Your task to perform on an android device: Open Chrome and go to settings Image 0: 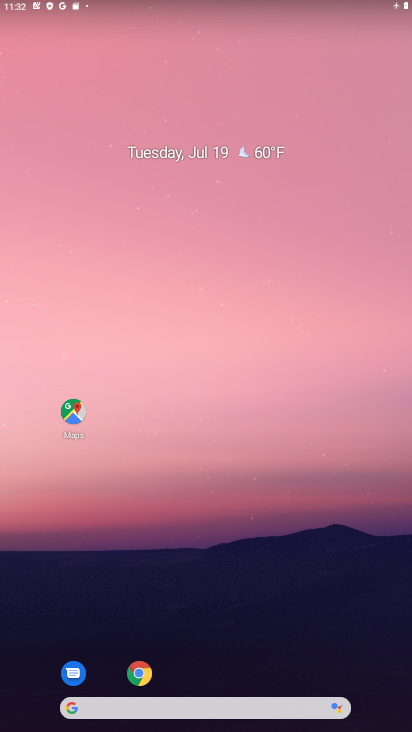
Step 0: click (140, 674)
Your task to perform on an android device: Open Chrome and go to settings Image 1: 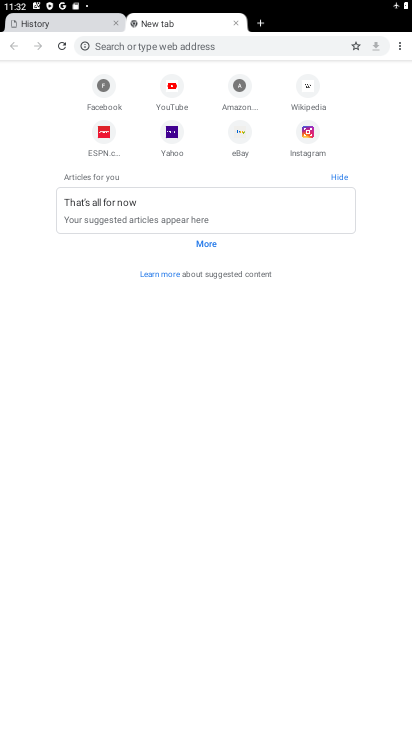
Step 1: click (401, 50)
Your task to perform on an android device: Open Chrome and go to settings Image 2: 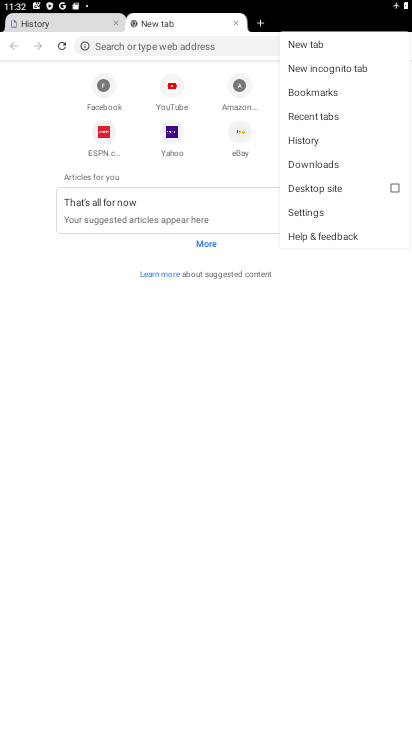
Step 2: click (306, 211)
Your task to perform on an android device: Open Chrome and go to settings Image 3: 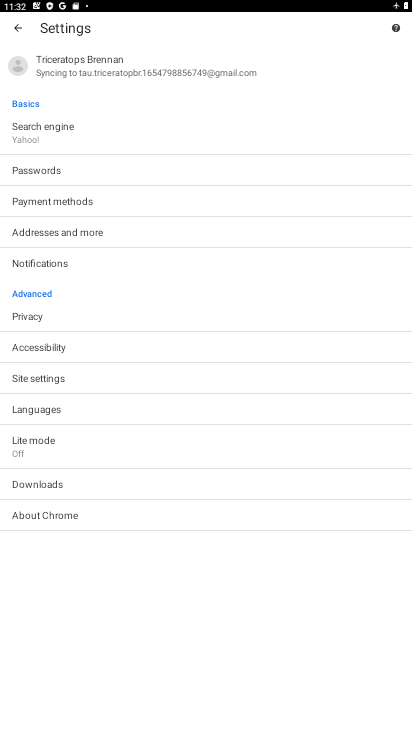
Step 3: task complete